Your task to perform on an android device: Open network settings Image 0: 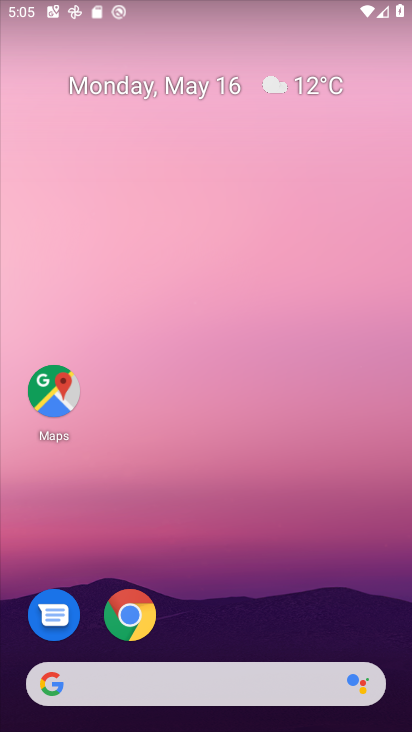
Step 0: drag from (246, 636) to (231, 85)
Your task to perform on an android device: Open network settings Image 1: 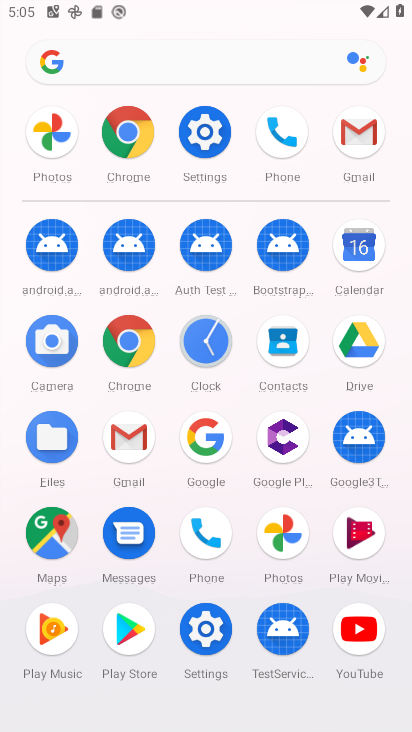
Step 1: click (201, 153)
Your task to perform on an android device: Open network settings Image 2: 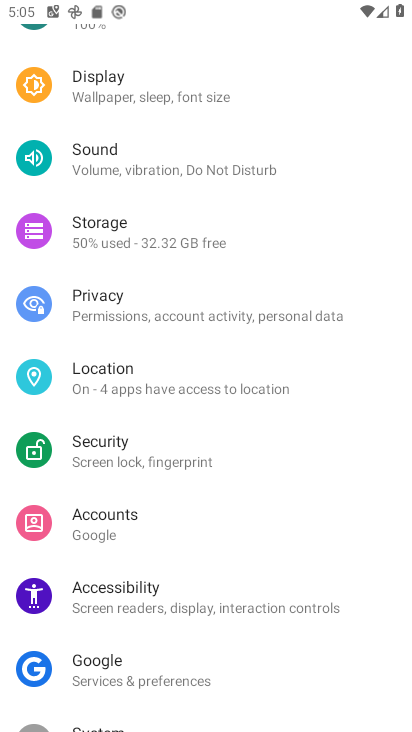
Step 2: drag from (197, 135) to (157, 693)
Your task to perform on an android device: Open network settings Image 3: 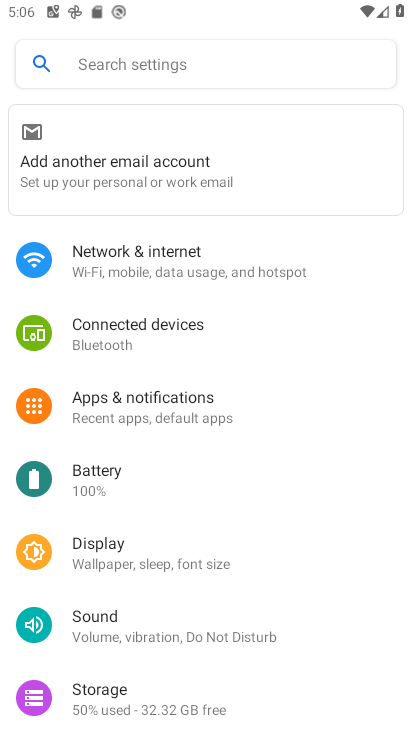
Step 3: click (126, 266)
Your task to perform on an android device: Open network settings Image 4: 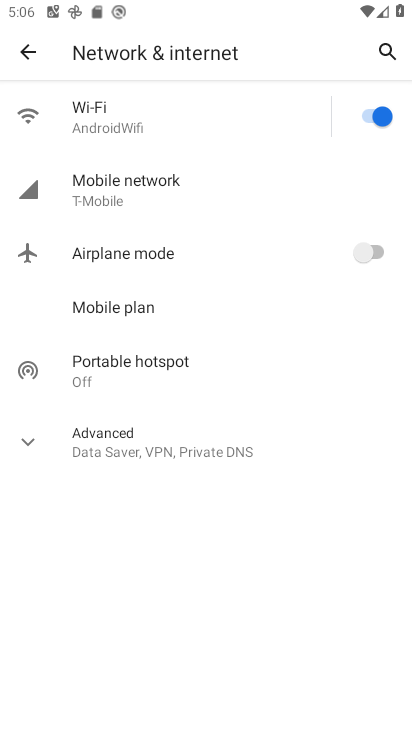
Step 4: task complete